Your task to perform on an android device: Go to Google Image 0: 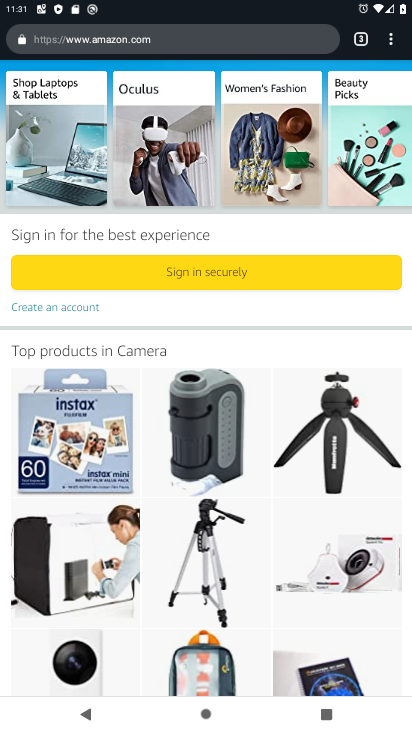
Step 0: press home button
Your task to perform on an android device: Go to Google Image 1: 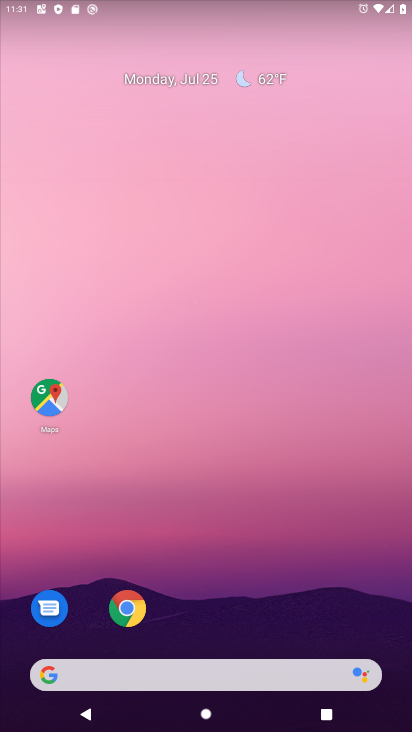
Step 1: click (49, 670)
Your task to perform on an android device: Go to Google Image 2: 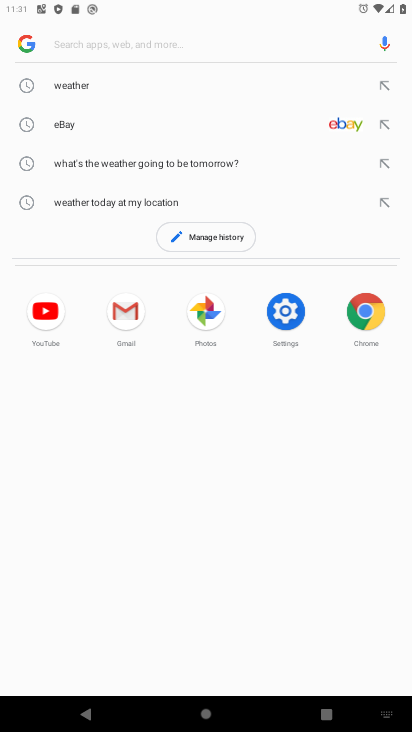
Step 2: click (28, 44)
Your task to perform on an android device: Go to Google Image 3: 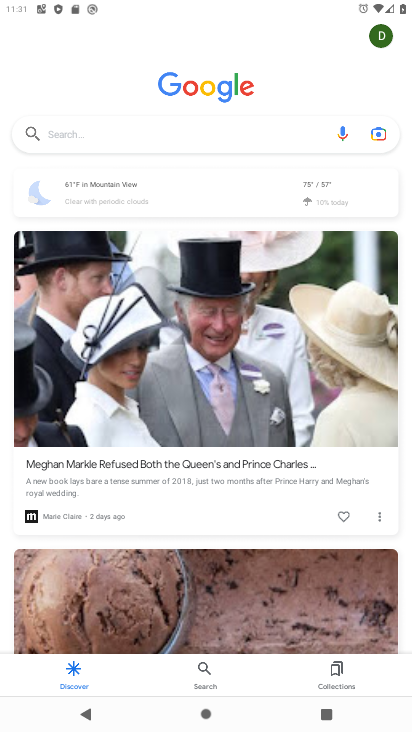
Step 3: task complete